Your task to perform on an android device: Go to network settings Image 0: 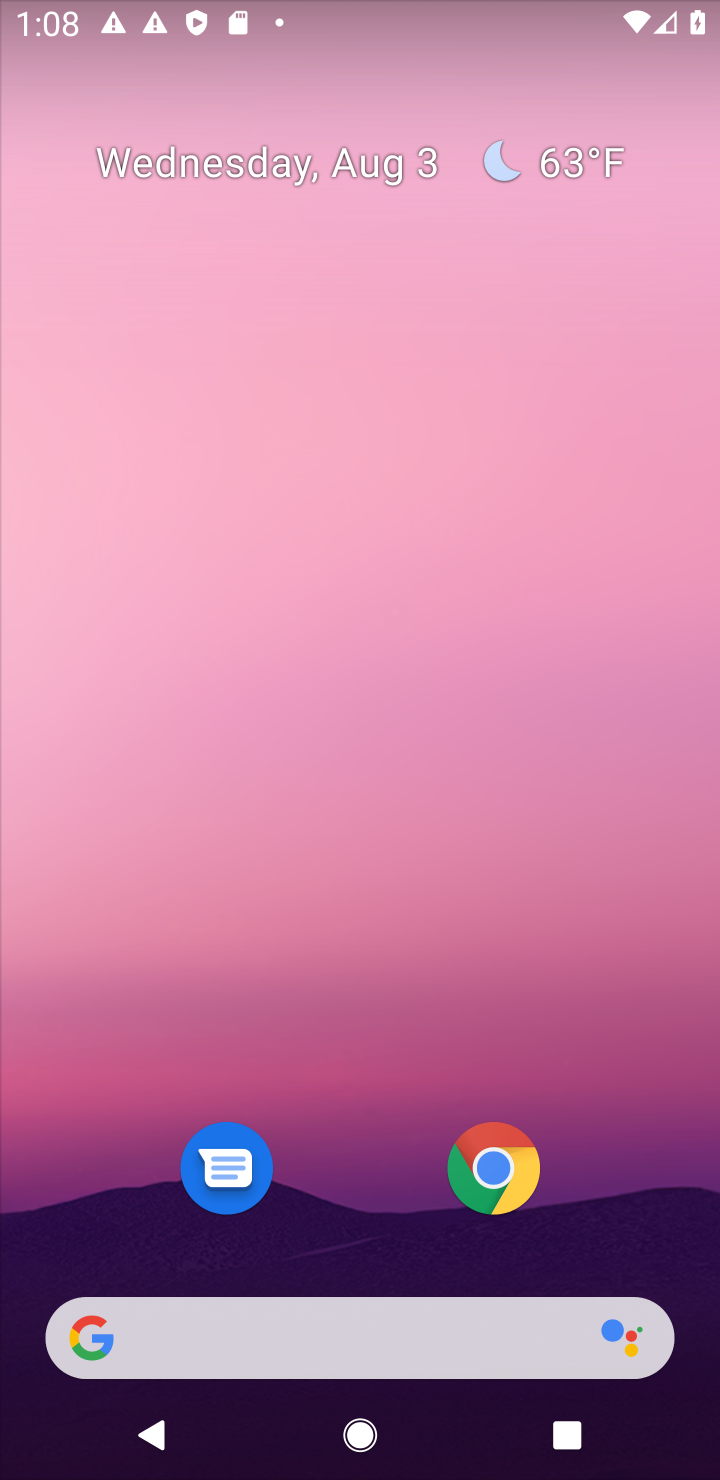
Step 0: drag from (653, 1263) to (567, 285)
Your task to perform on an android device: Go to network settings Image 1: 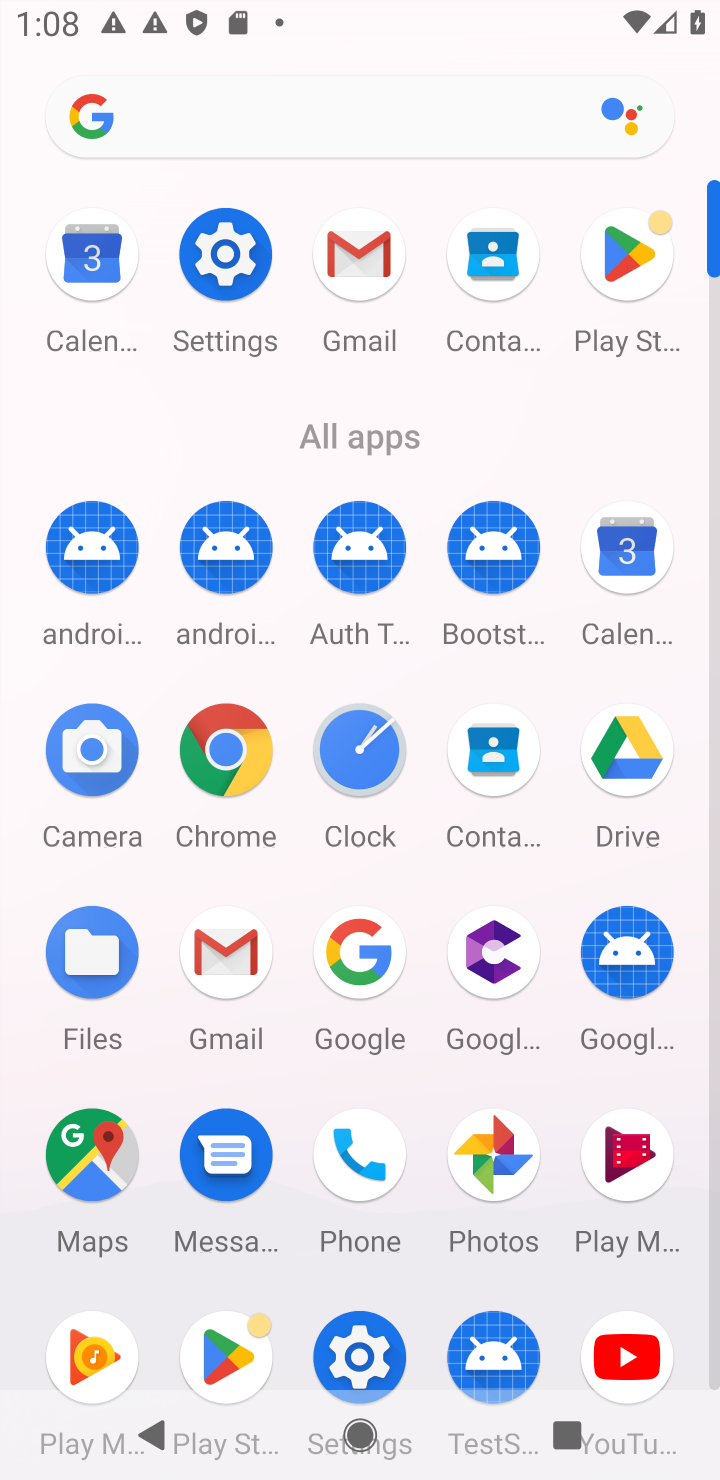
Step 1: click (363, 1352)
Your task to perform on an android device: Go to network settings Image 2: 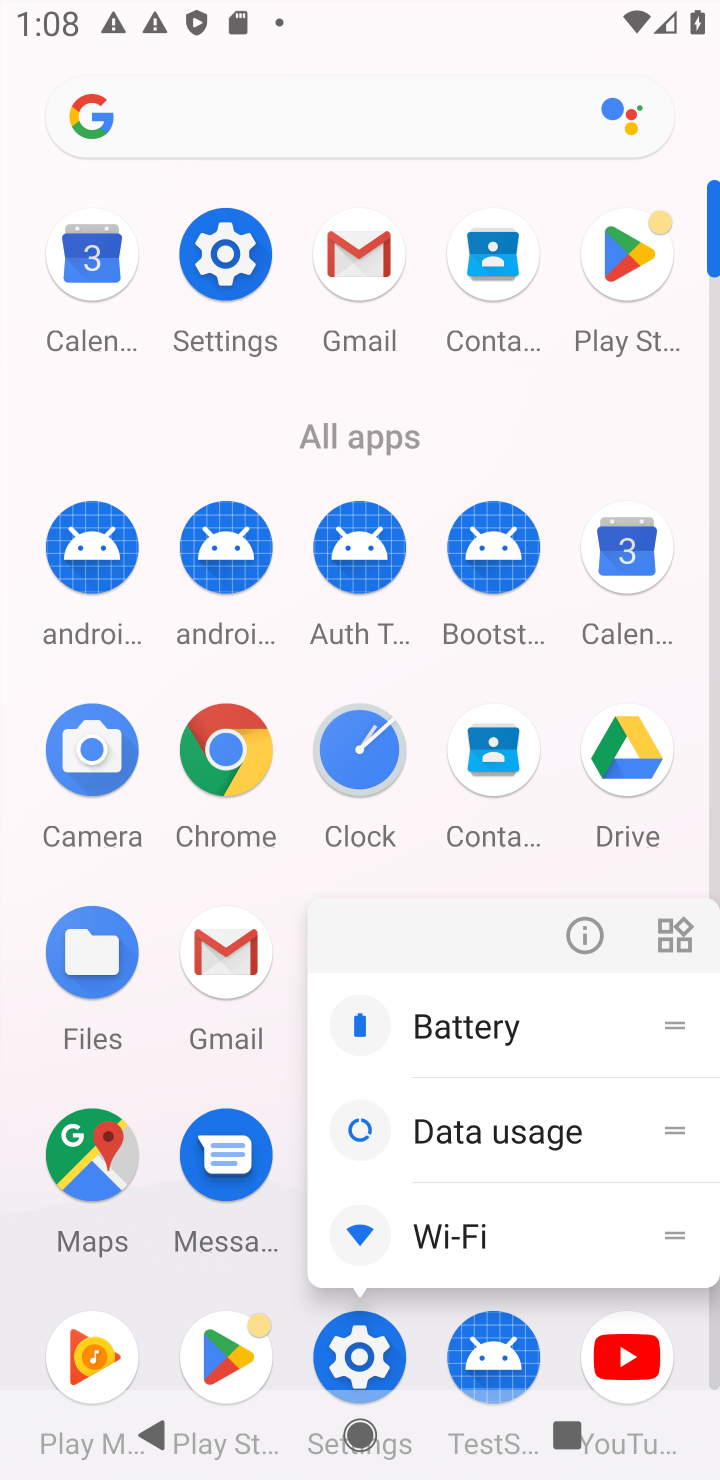
Step 2: click (360, 1349)
Your task to perform on an android device: Go to network settings Image 3: 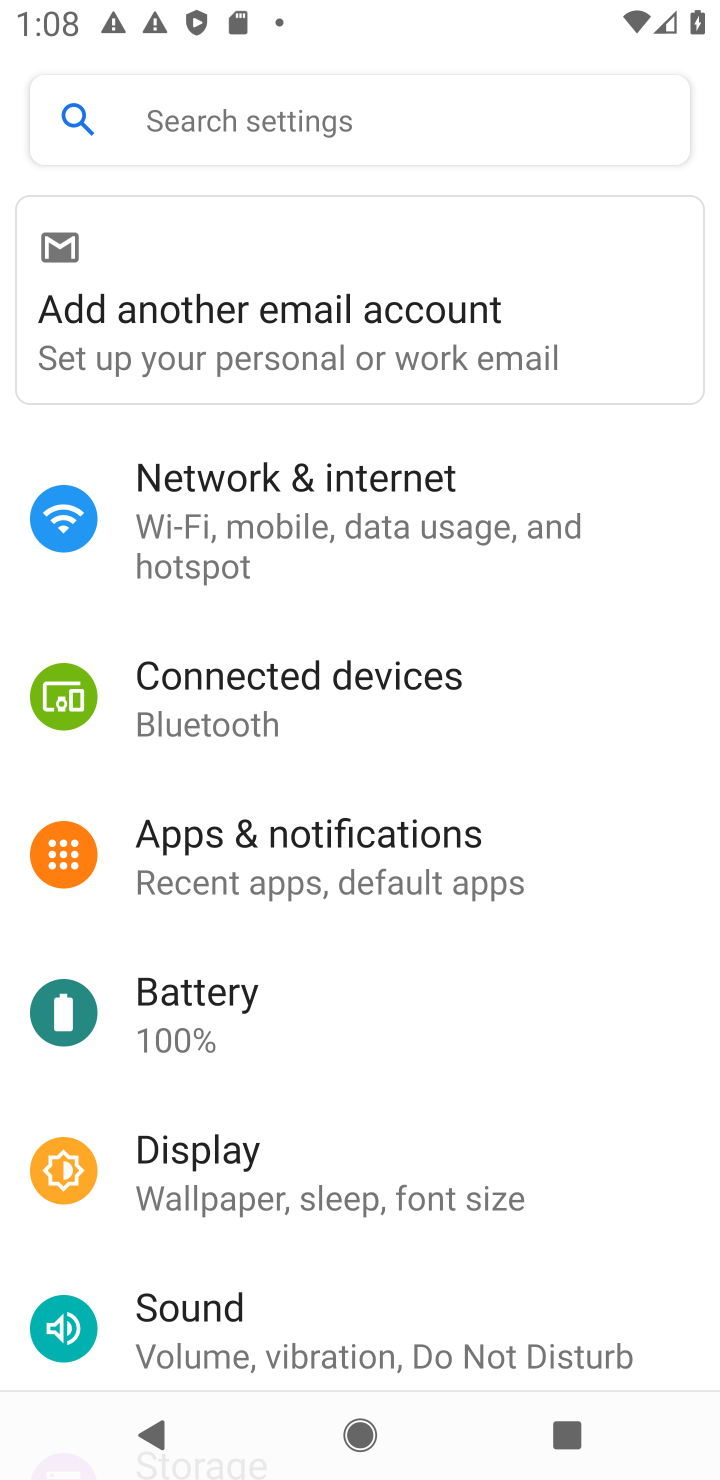
Step 3: click (228, 494)
Your task to perform on an android device: Go to network settings Image 4: 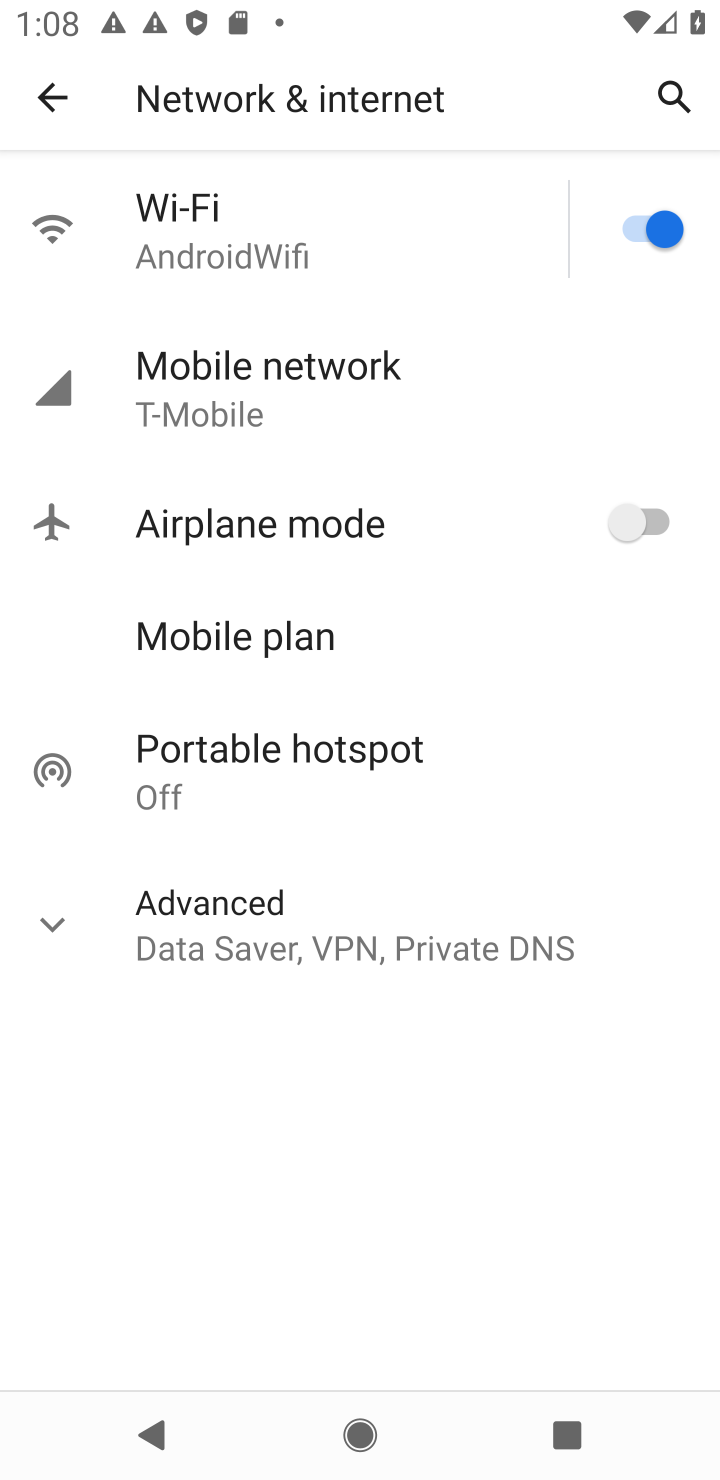
Step 4: click (222, 377)
Your task to perform on an android device: Go to network settings Image 5: 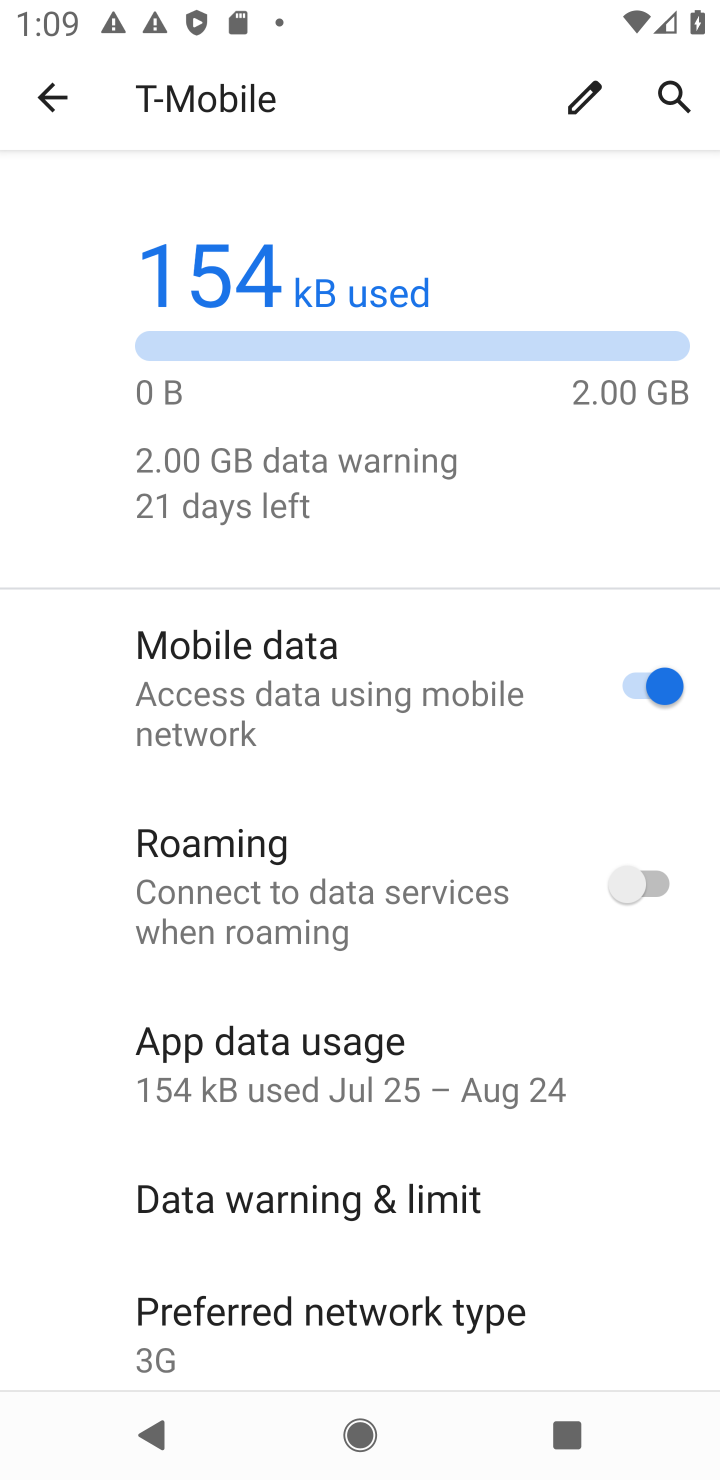
Step 5: task complete